Your task to perform on an android device: Open Chrome and go to the settings page Image 0: 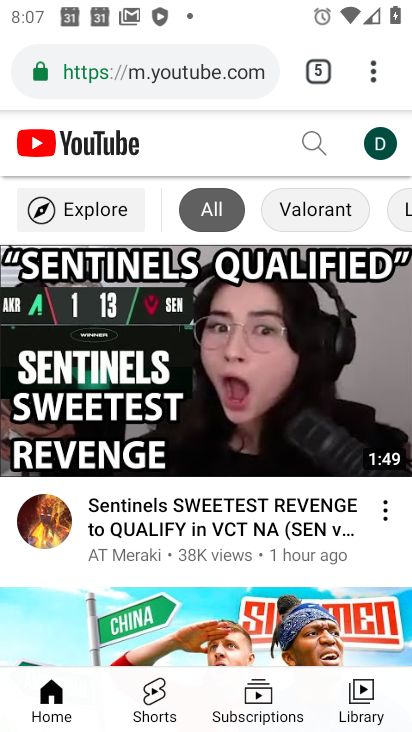
Step 0: press home button
Your task to perform on an android device: Open Chrome and go to the settings page Image 1: 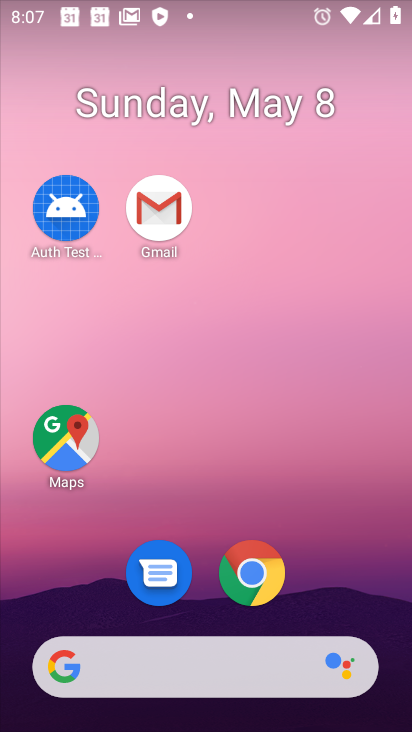
Step 1: drag from (339, 565) to (116, 4)
Your task to perform on an android device: Open Chrome and go to the settings page Image 2: 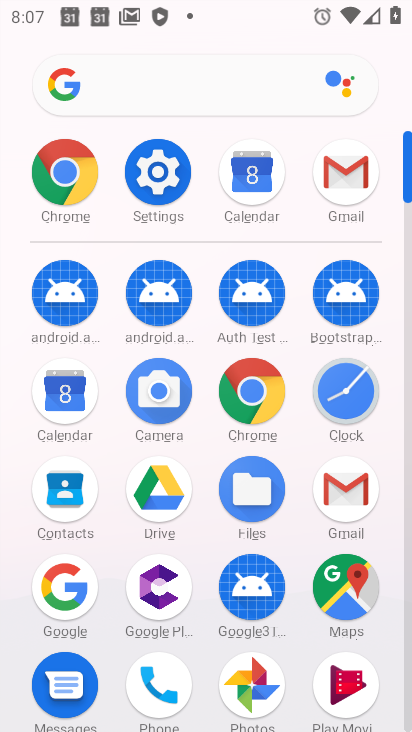
Step 2: click (65, 177)
Your task to perform on an android device: Open Chrome and go to the settings page Image 3: 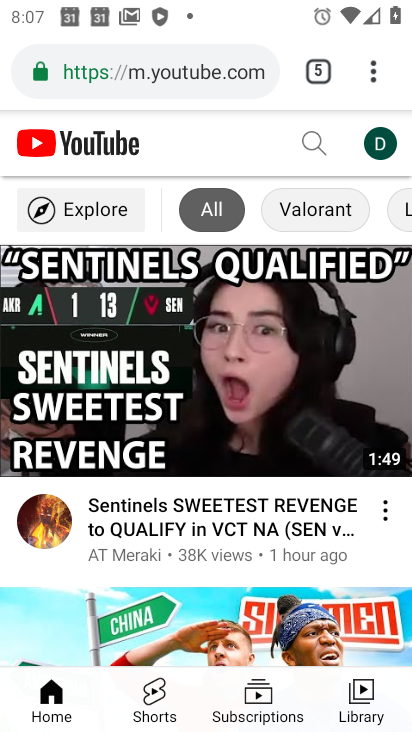
Step 3: drag from (371, 69) to (97, 571)
Your task to perform on an android device: Open Chrome and go to the settings page Image 4: 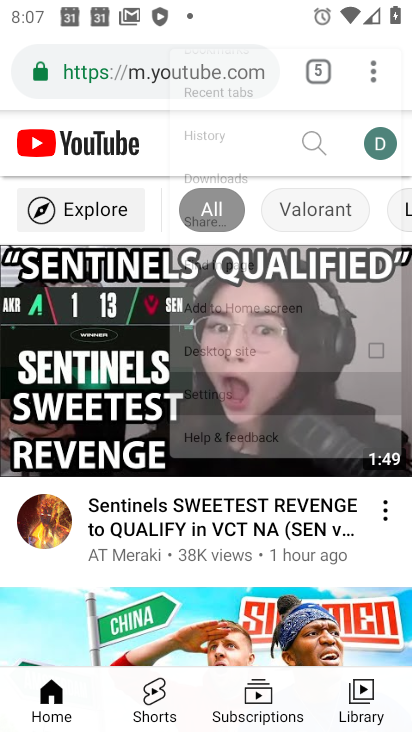
Step 4: click (97, 571)
Your task to perform on an android device: Open Chrome and go to the settings page Image 5: 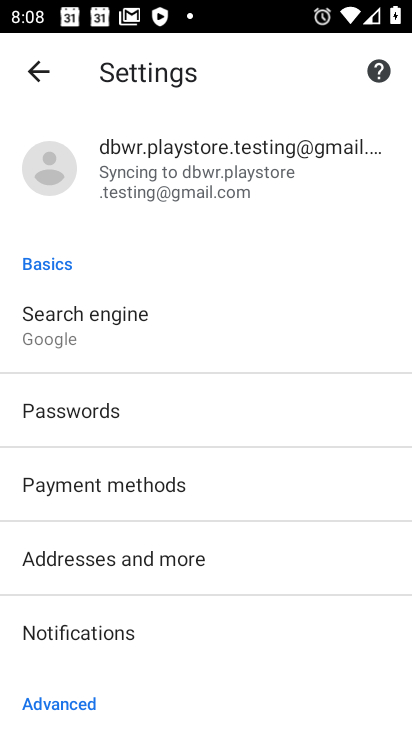
Step 5: task complete